Your task to perform on an android device: check out phone information Image 0: 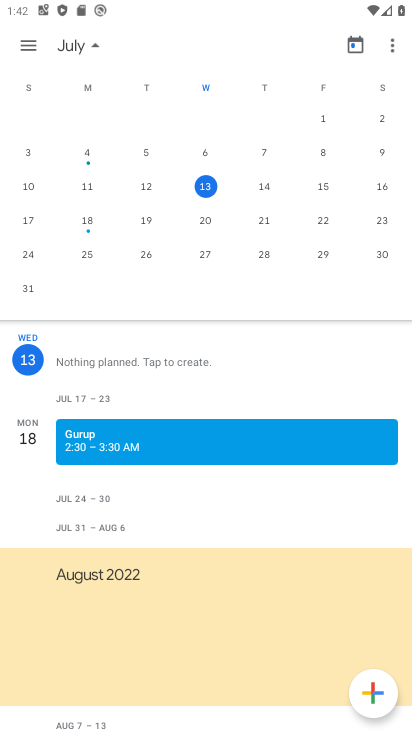
Step 0: press home button
Your task to perform on an android device: check out phone information Image 1: 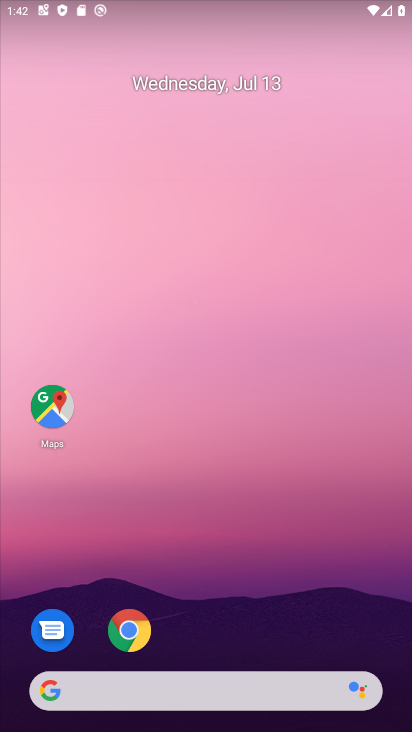
Step 1: drag from (332, 614) to (361, 81)
Your task to perform on an android device: check out phone information Image 2: 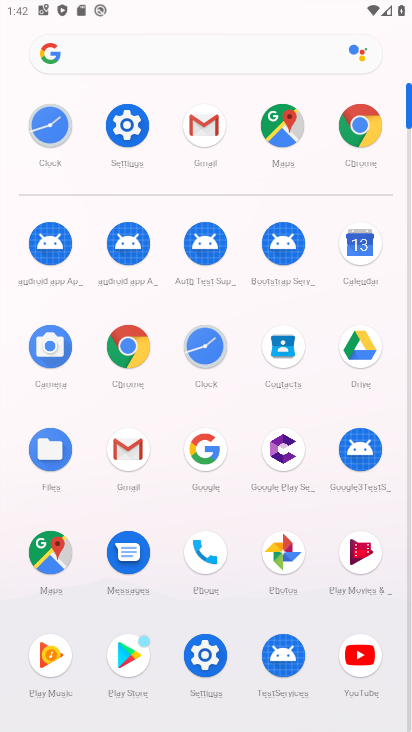
Step 2: click (206, 550)
Your task to perform on an android device: check out phone information Image 3: 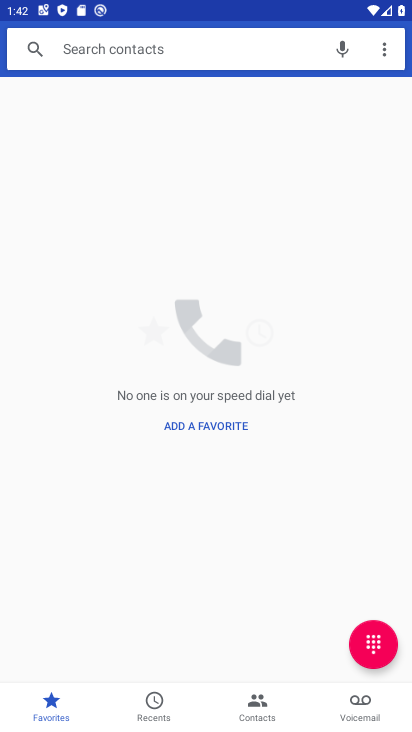
Step 3: task complete